Your task to perform on an android device: turn on location history Image 0: 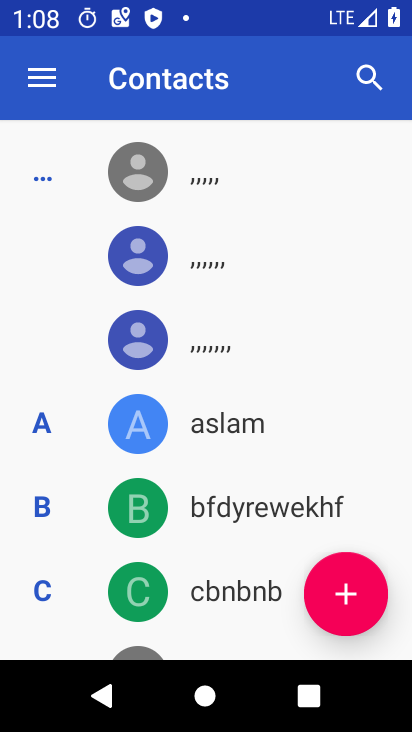
Step 0: press home button
Your task to perform on an android device: turn on location history Image 1: 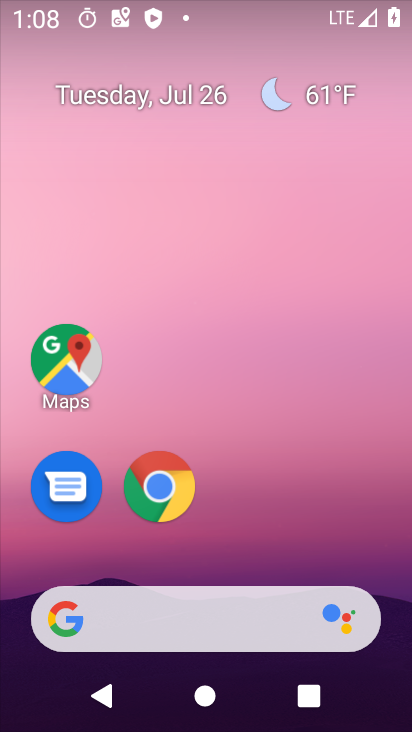
Step 1: drag from (362, 494) to (368, 58)
Your task to perform on an android device: turn on location history Image 2: 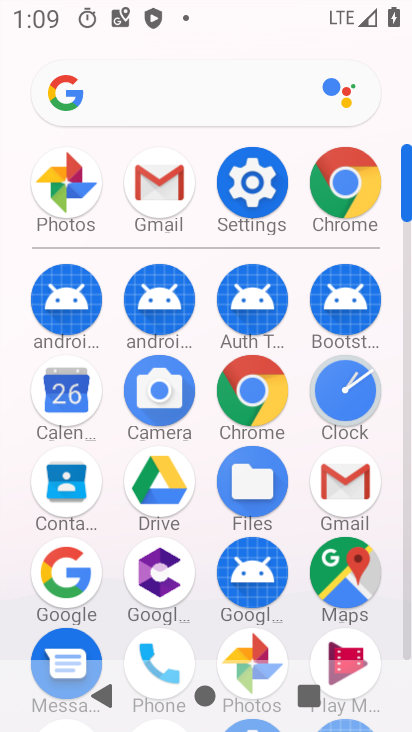
Step 2: click (247, 186)
Your task to perform on an android device: turn on location history Image 3: 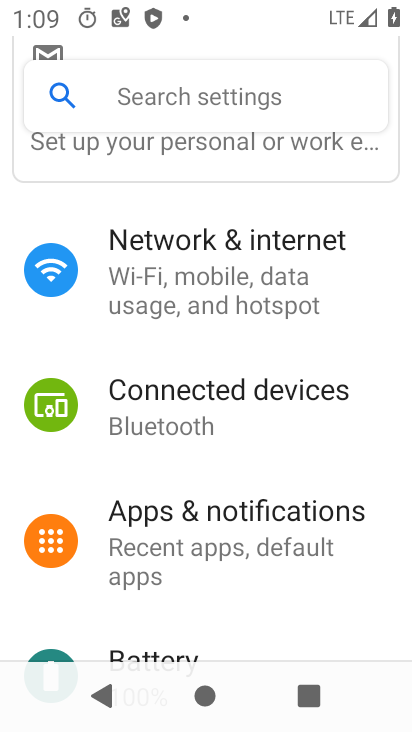
Step 3: drag from (313, 576) to (325, 451)
Your task to perform on an android device: turn on location history Image 4: 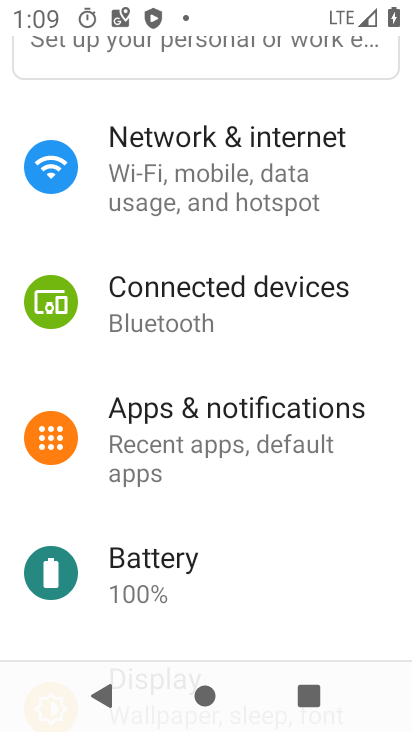
Step 4: drag from (337, 582) to (354, 470)
Your task to perform on an android device: turn on location history Image 5: 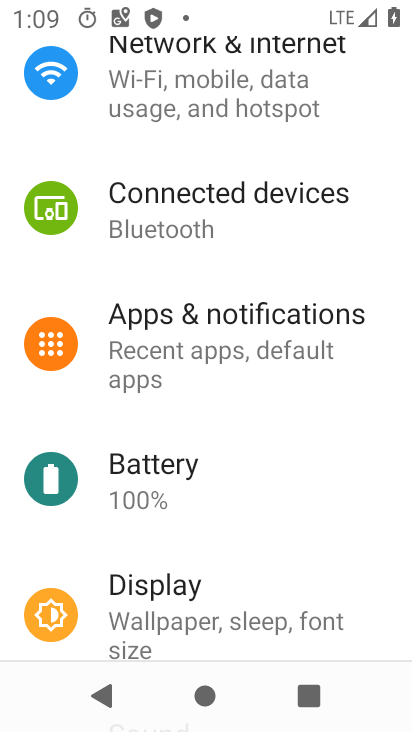
Step 5: drag from (358, 591) to (359, 480)
Your task to perform on an android device: turn on location history Image 6: 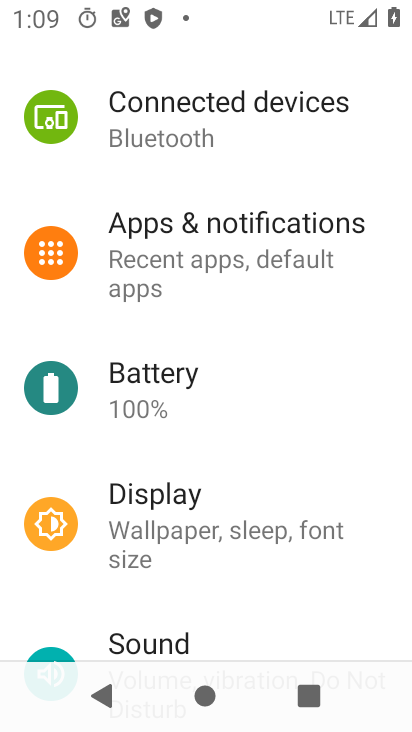
Step 6: drag from (361, 613) to (369, 479)
Your task to perform on an android device: turn on location history Image 7: 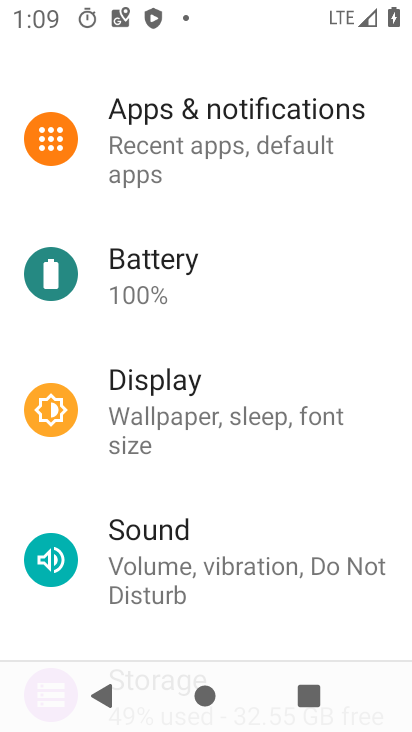
Step 7: drag from (351, 609) to (346, 470)
Your task to perform on an android device: turn on location history Image 8: 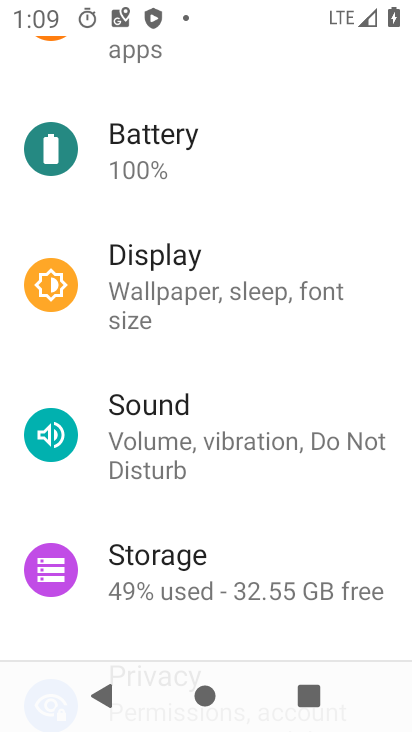
Step 8: drag from (331, 620) to (335, 494)
Your task to perform on an android device: turn on location history Image 9: 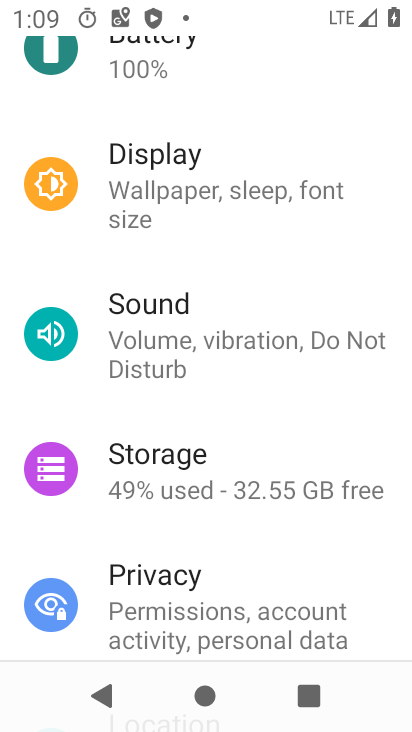
Step 9: drag from (334, 652) to (338, 549)
Your task to perform on an android device: turn on location history Image 10: 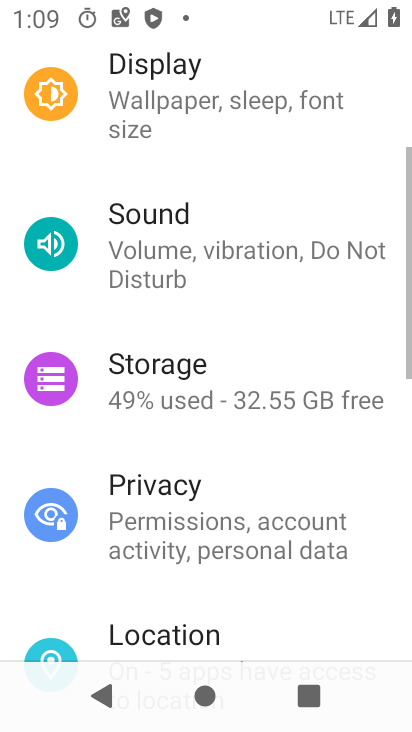
Step 10: drag from (346, 608) to (346, 491)
Your task to perform on an android device: turn on location history Image 11: 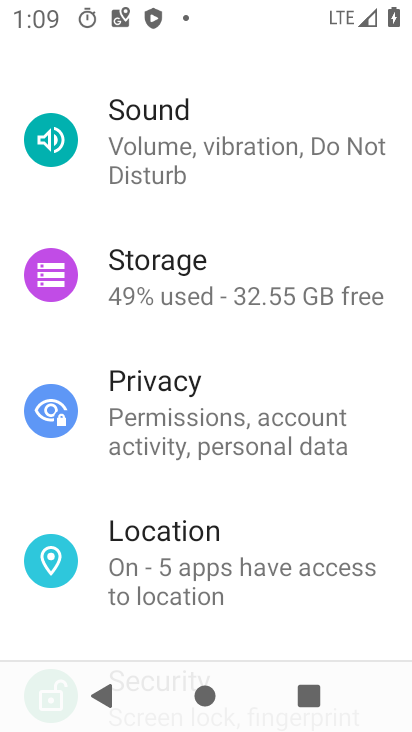
Step 11: click (334, 580)
Your task to perform on an android device: turn on location history Image 12: 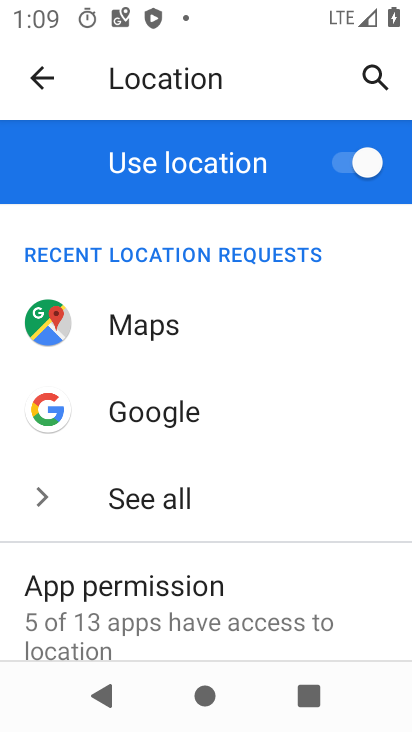
Step 12: drag from (336, 645) to (338, 511)
Your task to perform on an android device: turn on location history Image 13: 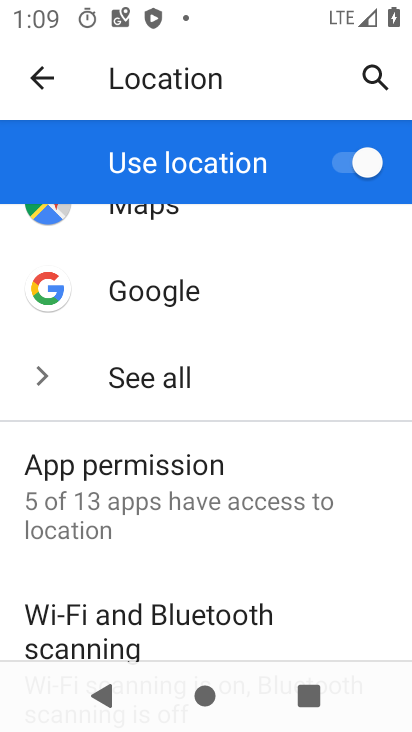
Step 13: drag from (358, 585) to (359, 387)
Your task to perform on an android device: turn on location history Image 14: 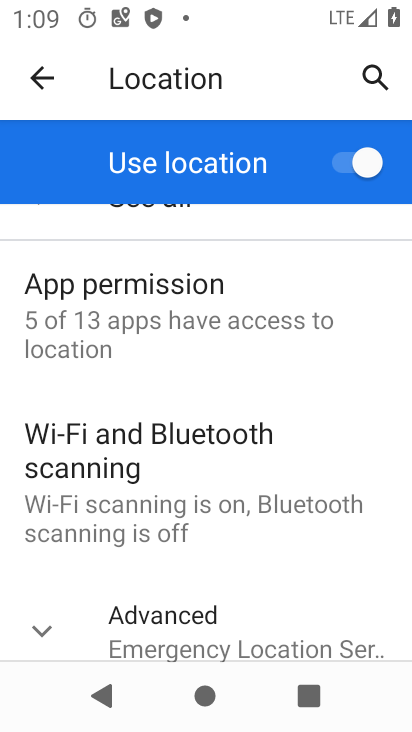
Step 14: drag from (301, 548) to (294, 411)
Your task to perform on an android device: turn on location history Image 15: 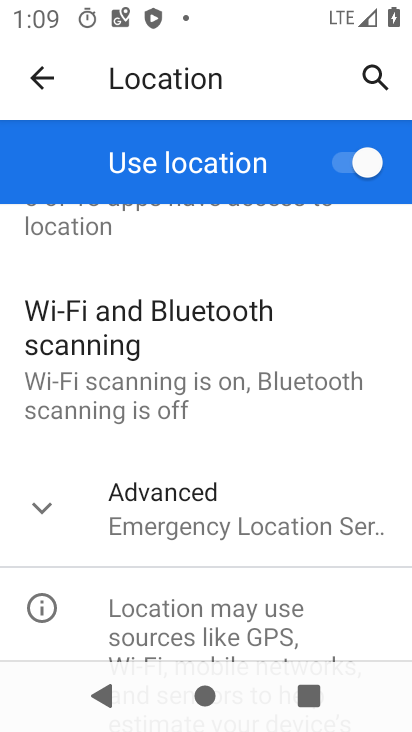
Step 15: click (272, 527)
Your task to perform on an android device: turn on location history Image 16: 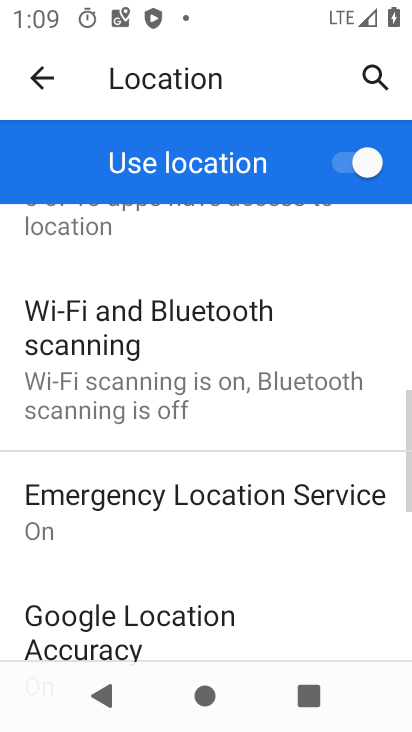
Step 16: drag from (278, 581) to (290, 444)
Your task to perform on an android device: turn on location history Image 17: 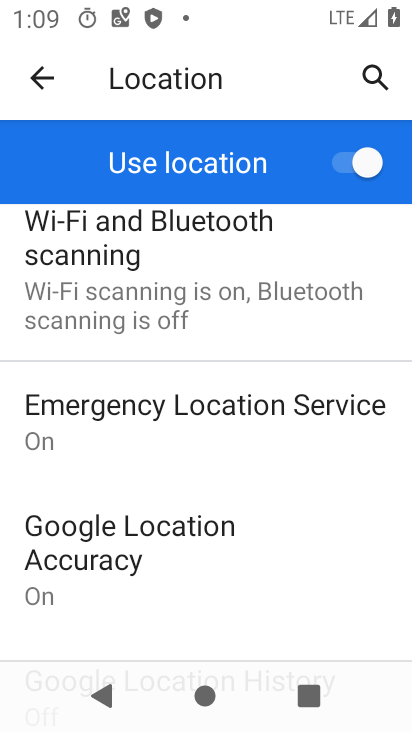
Step 17: drag from (271, 571) to (270, 412)
Your task to perform on an android device: turn on location history Image 18: 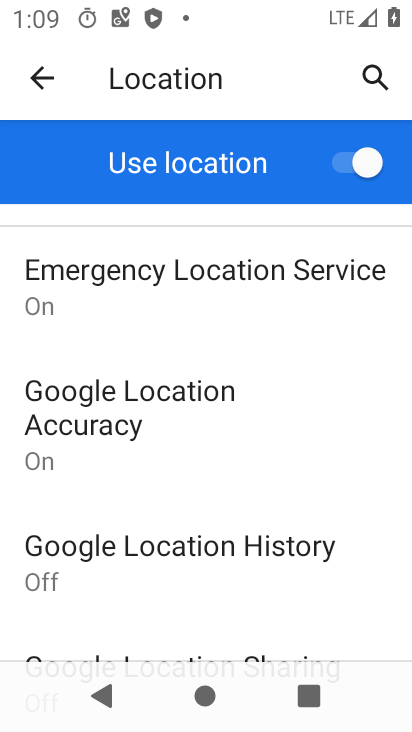
Step 18: drag from (262, 507) to (277, 333)
Your task to perform on an android device: turn on location history Image 19: 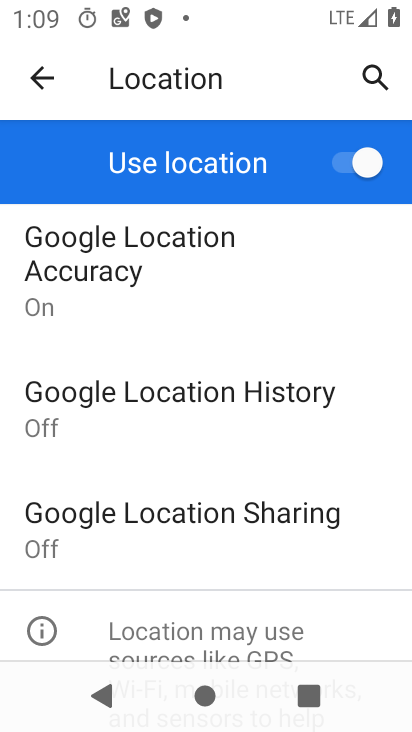
Step 19: click (208, 421)
Your task to perform on an android device: turn on location history Image 20: 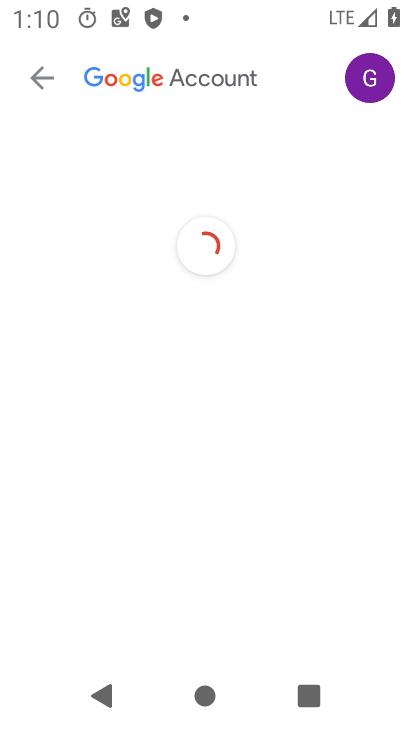
Step 20: task complete